Your task to perform on an android device: Show me recent news Image 0: 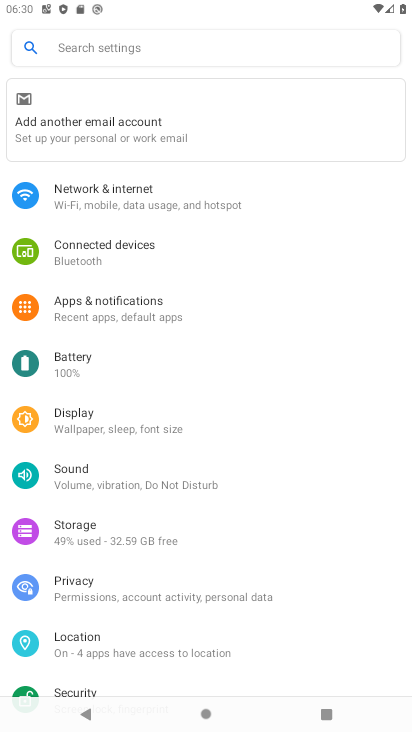
Step 0: press home button
Your task to perform on an android device: Show me recent news Image 1: 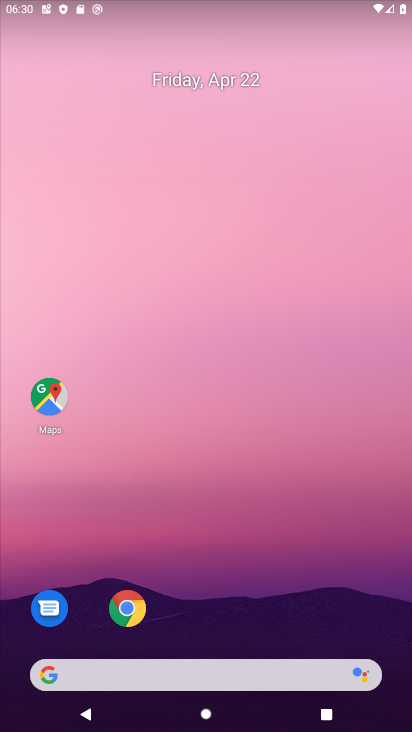
Step 1: drag from (244, 608) to (224, 182)
Your task to perform on an android device: Show me recent news Image 2: 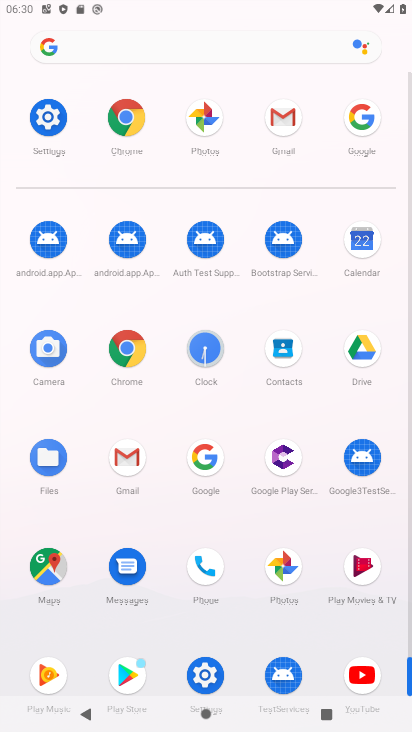
Step 2: click (196, 474)
Your task to perform on an android device: Show me recent news Image 3: 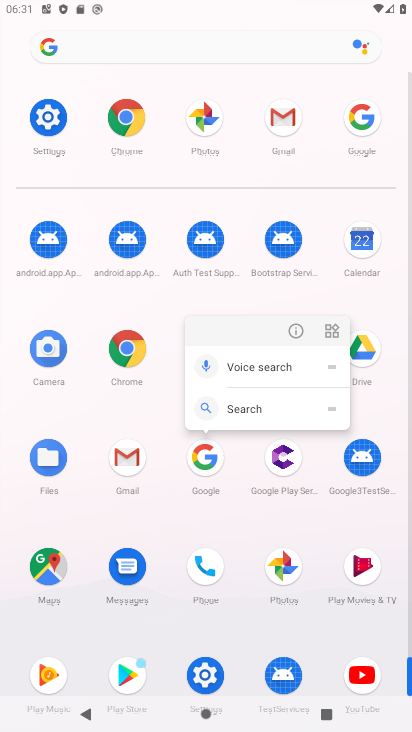
Step 3: click (209, 471)
Your task to perform on an android device: Show me recent news Image 4: 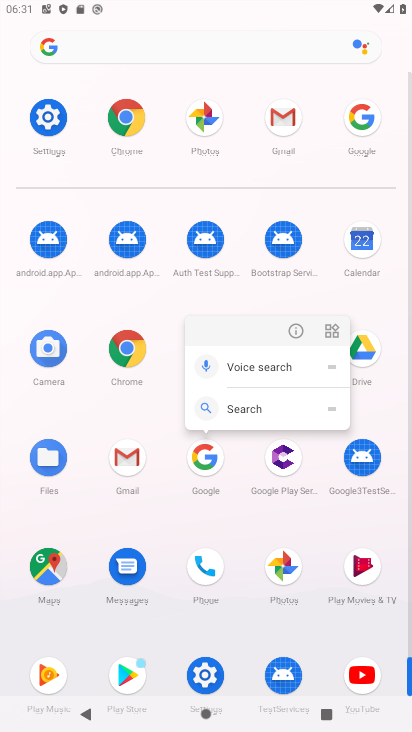
Step 4: click (203, 459)
Your task to perform on an android device: Show me recent news Image 5: 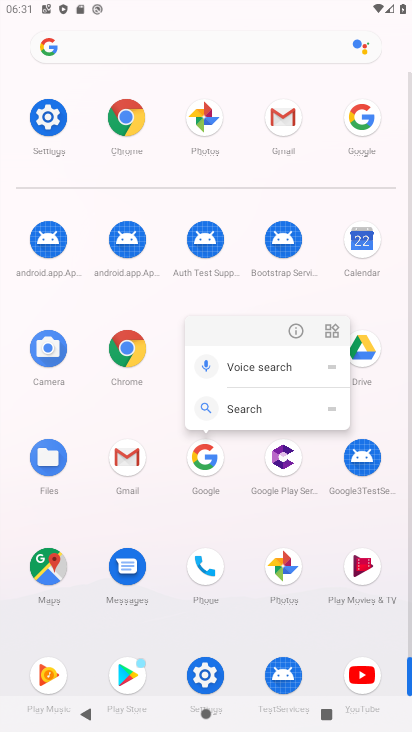
Step 5: click (201, 473)
Your task to perform on an android device: Show me recent news Image 6: 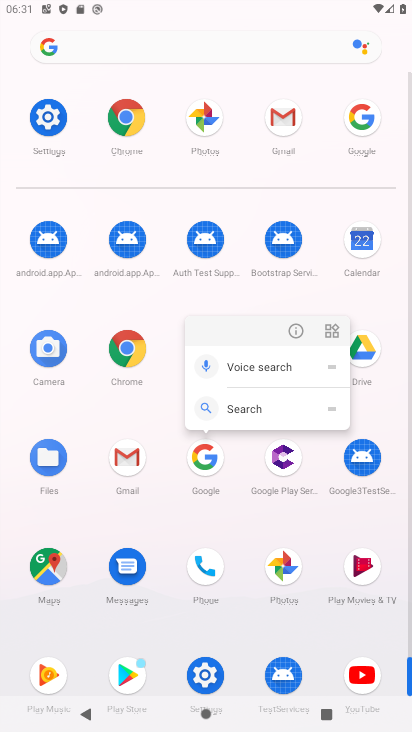
Step 6: click (209, 466)
Your task to perform on an android device: Show me recent news Image 7: 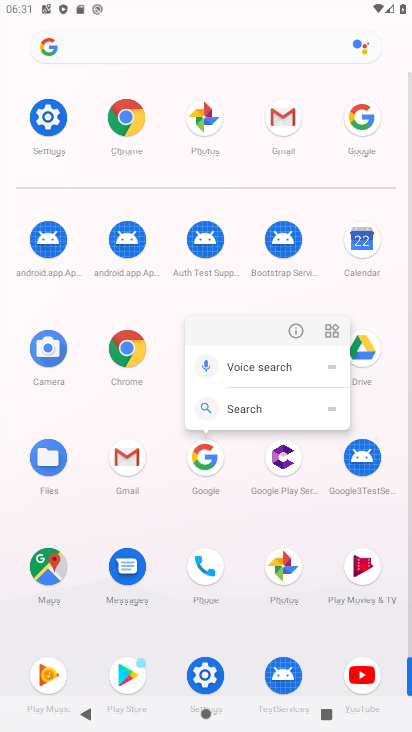
Step 7: click (206, 486)
Your task to perform on an android device: Show me recent news Image 8: 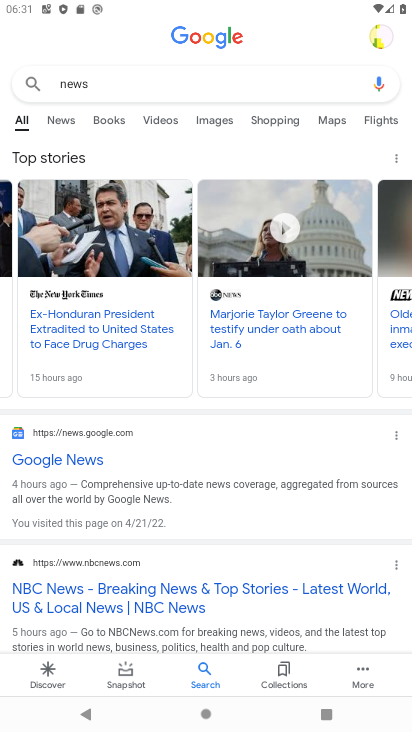
Step 8: task complete